Your task to perform on an android device: turn notification dots on Image 0: 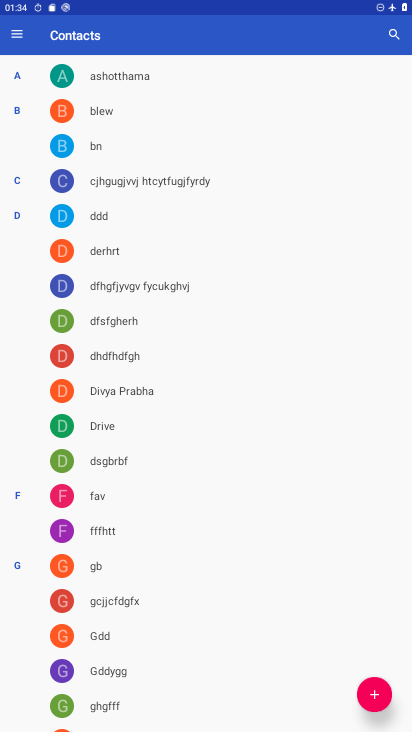
Step 0: press home button
Your task to perform on an android device: turn notification dots on Image 1: 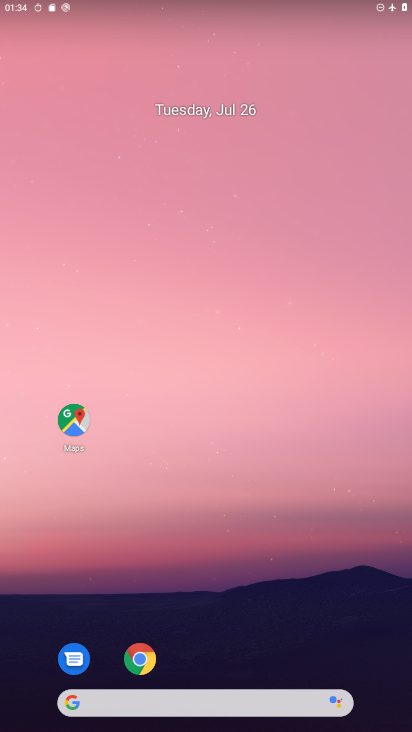
Step 1: drag from (62, 616) to (198, 50)
Your task to perform on an android device: turn notification dots on Image 2: 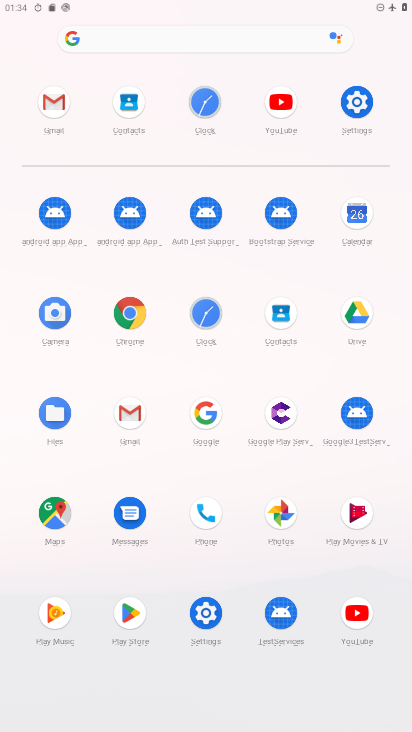
Step 2: click (211, 621)
Your task to perform on an android device: turn notification dots on Image 3: 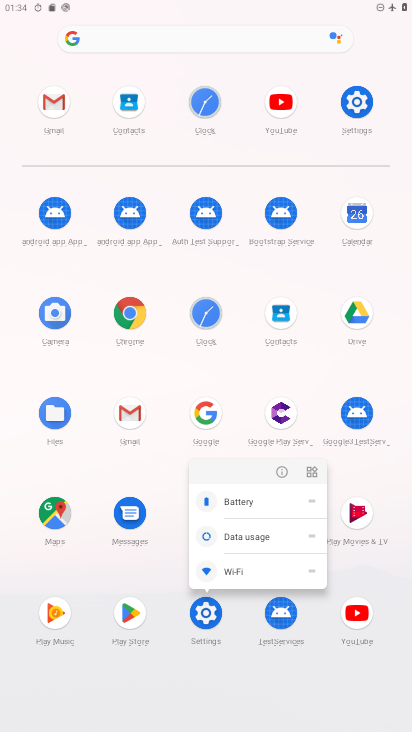
Step 3: click (201, 605)
Your task to perform on an android device: turn notification dots on Image 4: 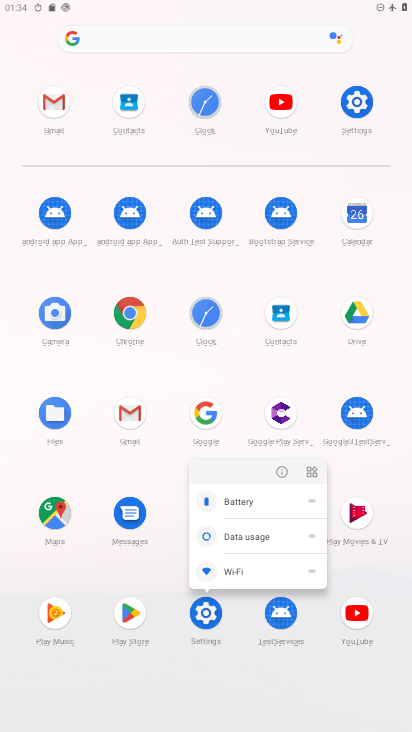
Step 4: click (198, 608)
Your task to perform on an android device: turn notification dots on Image 5: 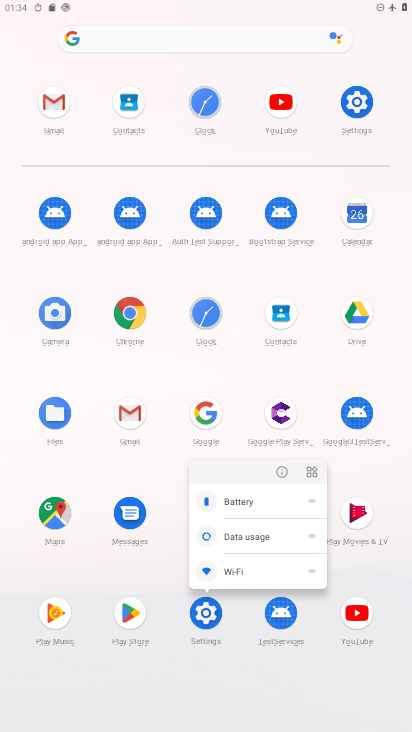
Step 5: click (195, 615)
Your task to perform on an android device: turn notification dots on Image 6: 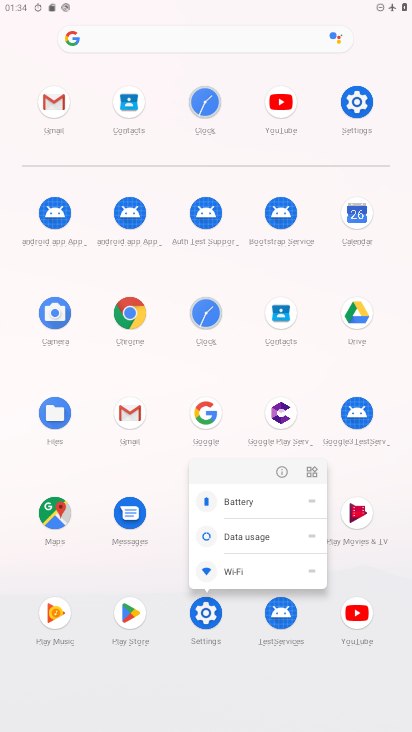
Step 6: task complete